Your task to perform on an android device: Is it going to rain today? Image 0: 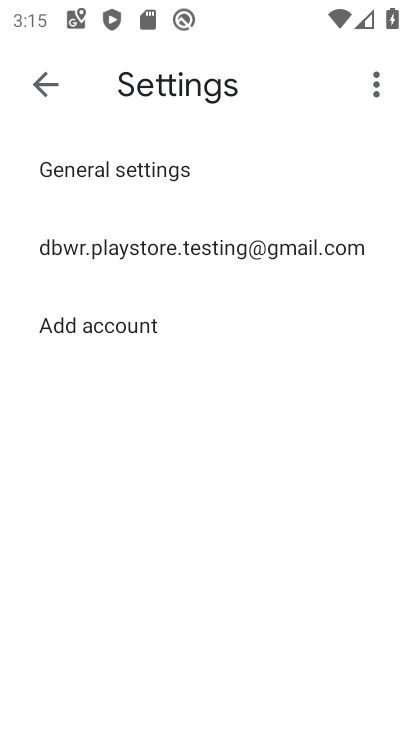
Step 0: press home button
Your task to perform on an android device: Is it going to rain today? Image 1: 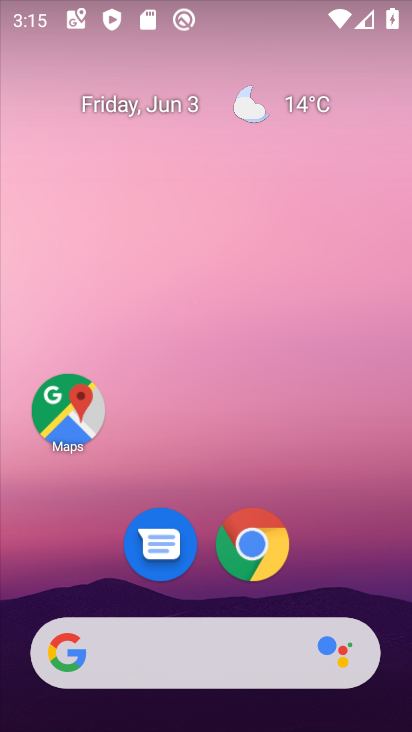
Step 1: click (302, 103)
Your task to perform on an android device: Is it going to rain today? Image 2: 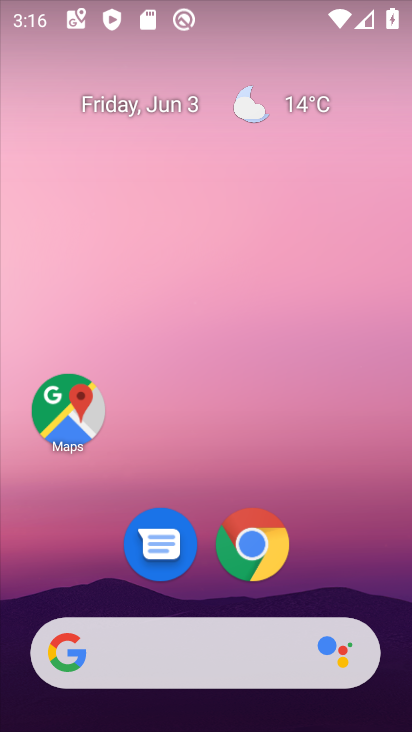
Step 2: click (302, 103)
Your task to perform on an android device: Is it going to rain today? Image 3: 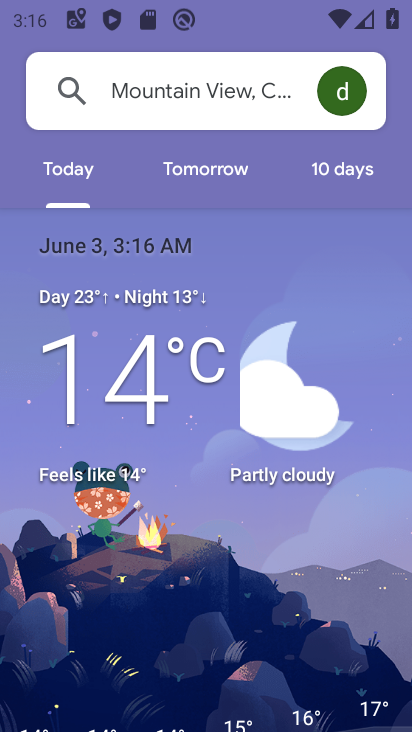
Step 3: task complete